Your task to perform on an android device: change the clock display to show seconds Image 0: 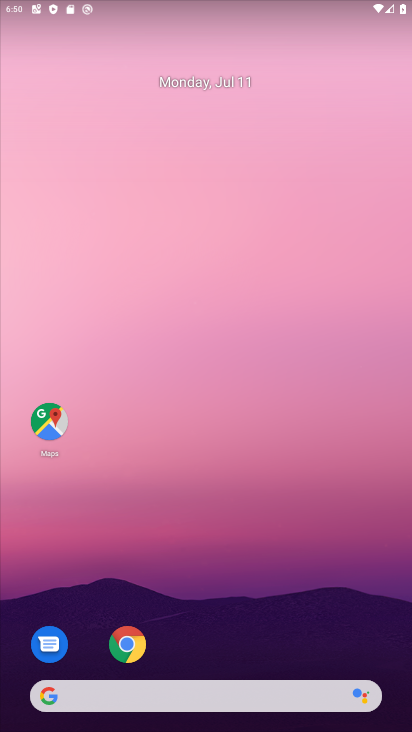
Step 0: drag from (280, 687) to (373, 0)
Your task to perform on an android device: change the clock display to show seconds Image 1: 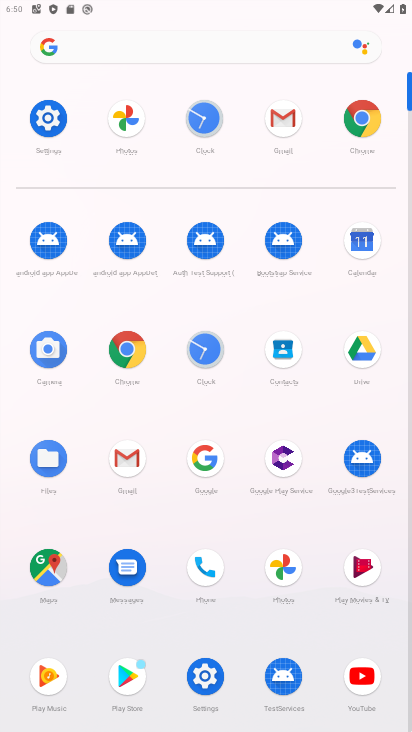
Step 1: click (204, 346)
Your task to perform on an android device: change the clock display to show seconds Image 2: 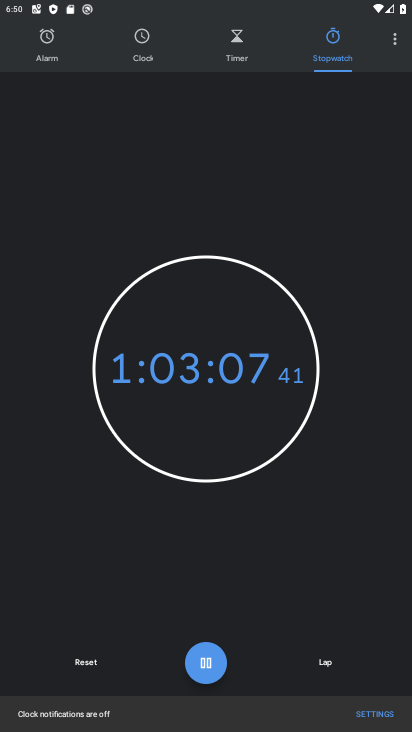
Step 2: click (392, 33)
Your task to perform on an android device: change the clock display to show seconds Image 3: 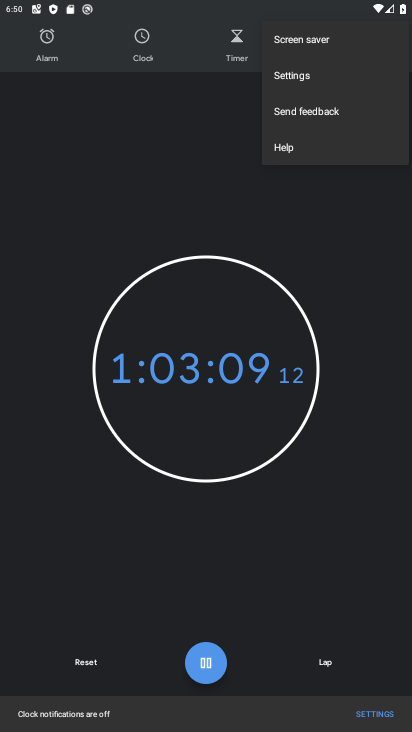
Step 3: click (311, 70)
Your task to perform on an android device: change the clock display to show seconds Image 4: 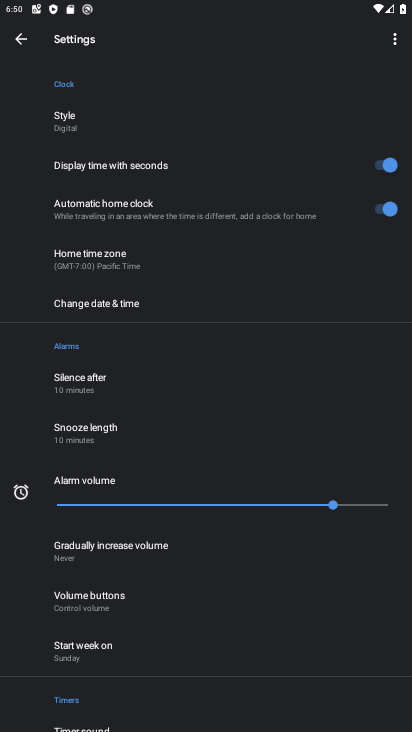
Step 4: click (386, 166)
Your task to perform on an android device: change the clock display to show seconds Image 5: 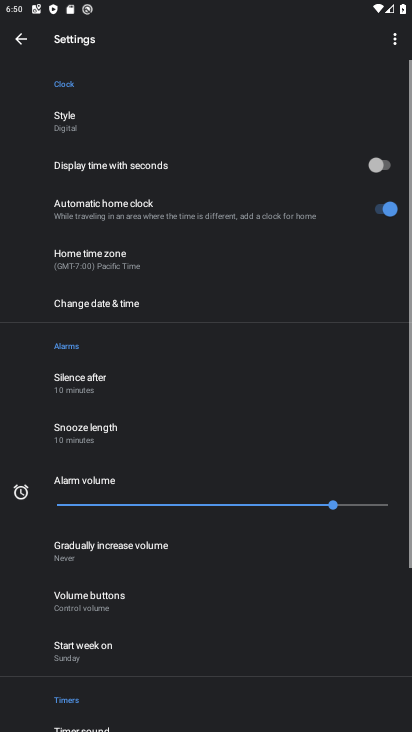
Step 5: task complete